Your task to perform on an android device: open app "Airtel Thanks" (install if not already installed), go to login, and select forgot password Image 0: 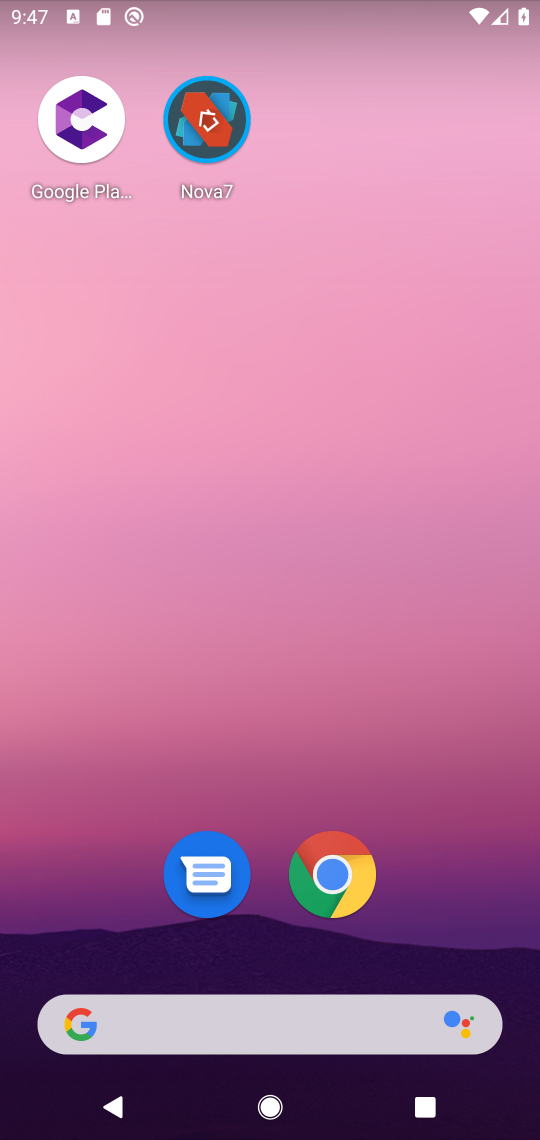
Step 0: drag from (380, 586) to (388, 131)
Your task to perform on an android device: open app "Airtel Thanks" (install if not already installed), go to login, and select forgot password Image 1: 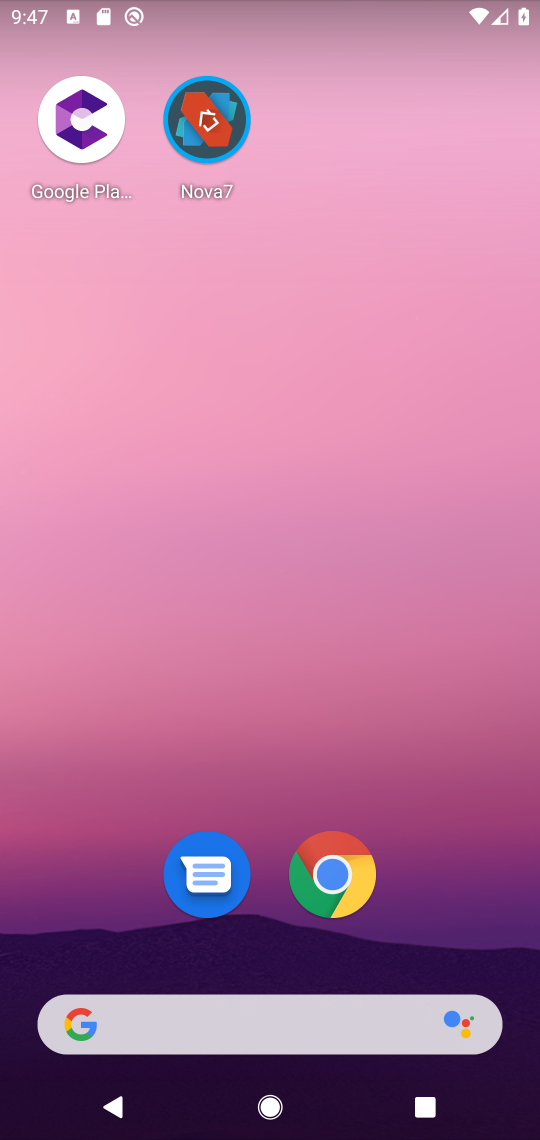
Step 1: drag from (292, 815) to (207, 186)
Your task to perform on an android device: open app "Airtel Thanks" (install if not already installed), go to login, and select forgot password Image 2: 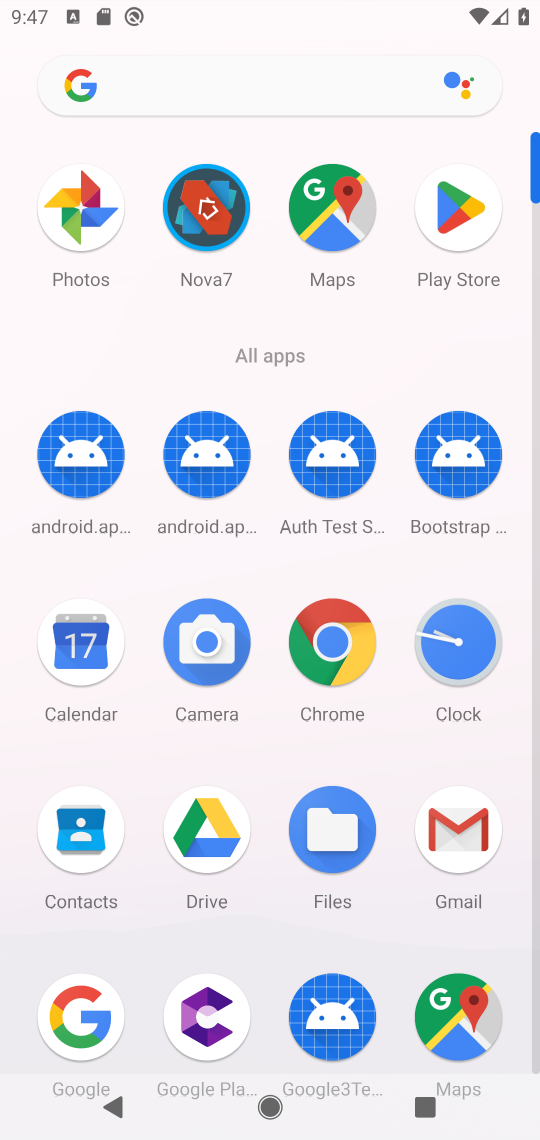
Step 2: click (460, 243)
Your task to perform on an android device: open app "Airtel Thanks" (install if not already installed), go to login, and select forgot password Image 3: 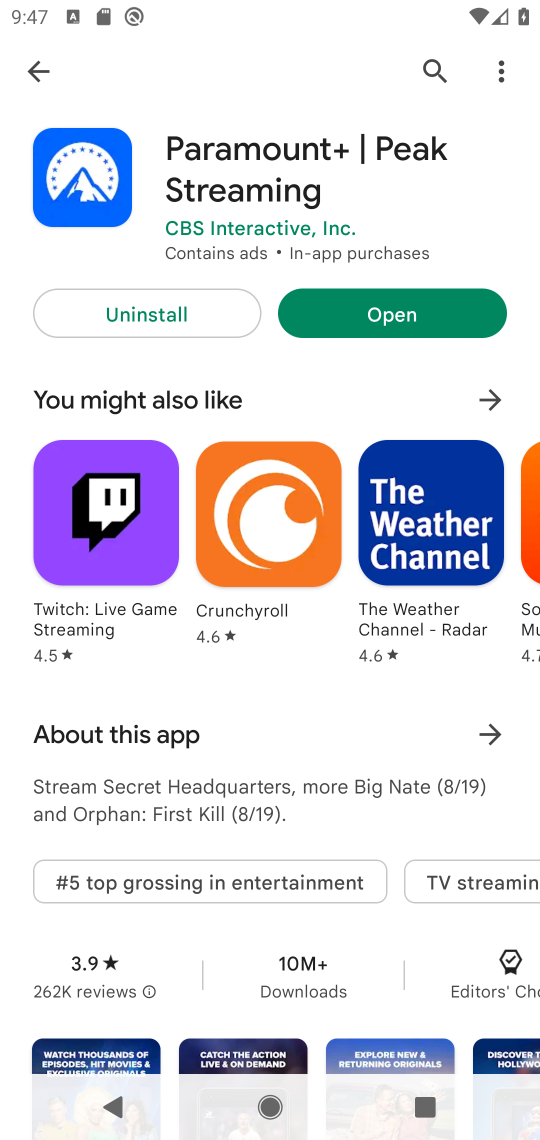
Step 3: click (36, 67)
Your task to perform on an android device: open app "Airtel Thanks" (install if not already installed), go to login, and select forgot password Image 4: 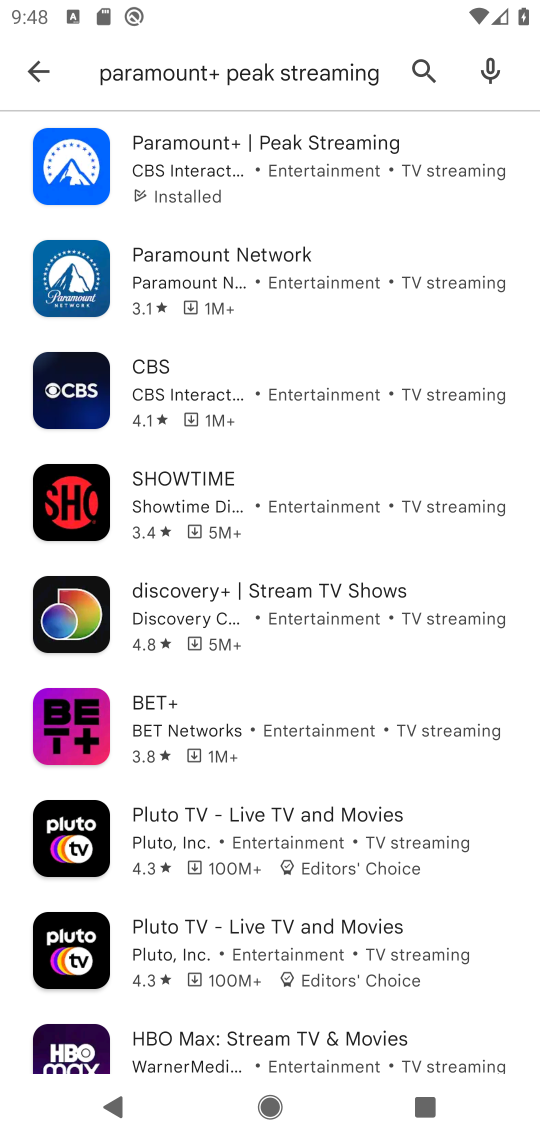
Step 4: click (34, 69)
Your task to perform on an android device: open app "Airtel Thanks" (install if not already installed), go to login, and select forgot password Image 5: 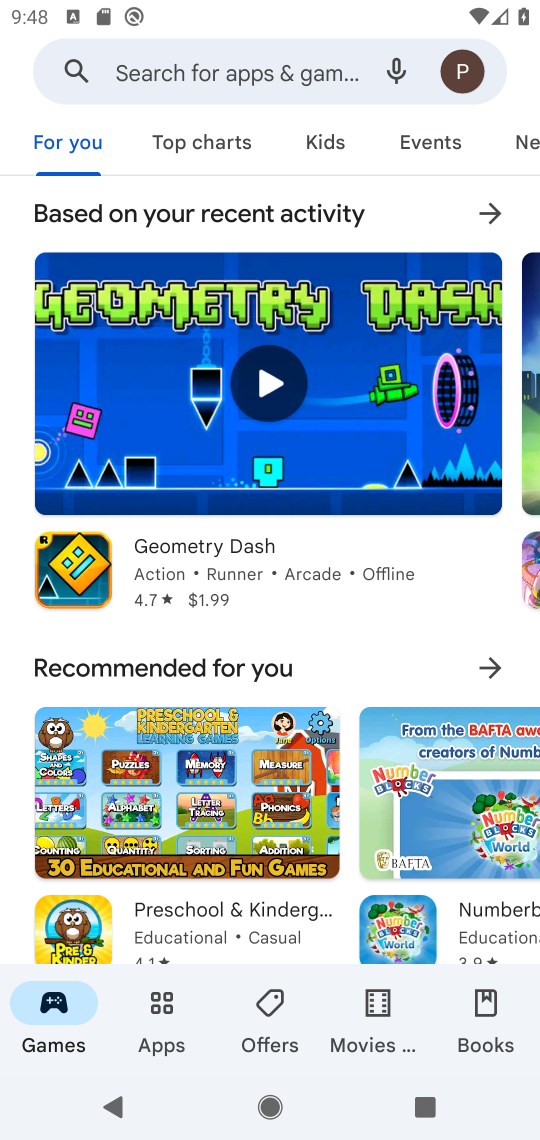
Step 5: click (110, 64)
Your task to perform on an android device: open app "Airtel Thanks" (install if not already installed), go to login, and select forgot password Image 6: 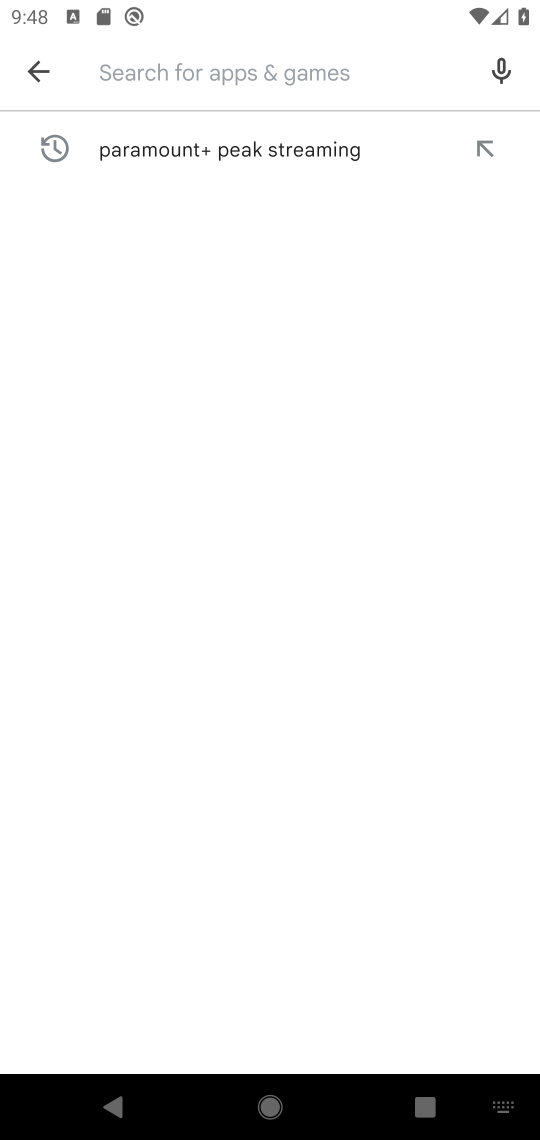
Step 6: type "Airtel Thanks"
Your task to perform on an android device: open app "Airtel Thanks" (install if not already installed), go to login, and select forgot password Image 7: 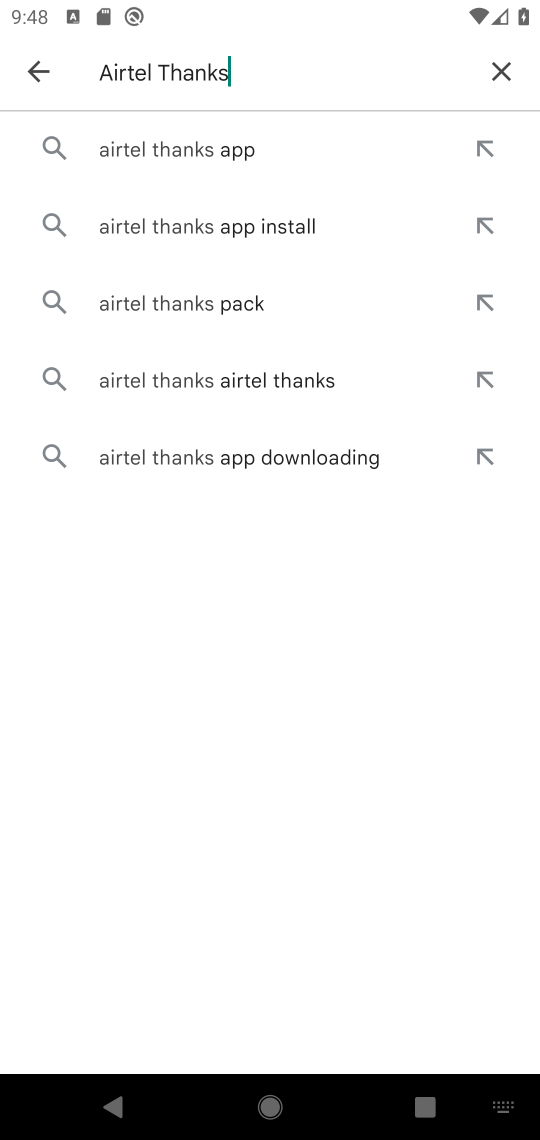
Step 7: click (108, 156)
Your task to perform on an android device: open app "Airtel Thanks" (install if not already installed), go to login, and select forgot password Image 8: 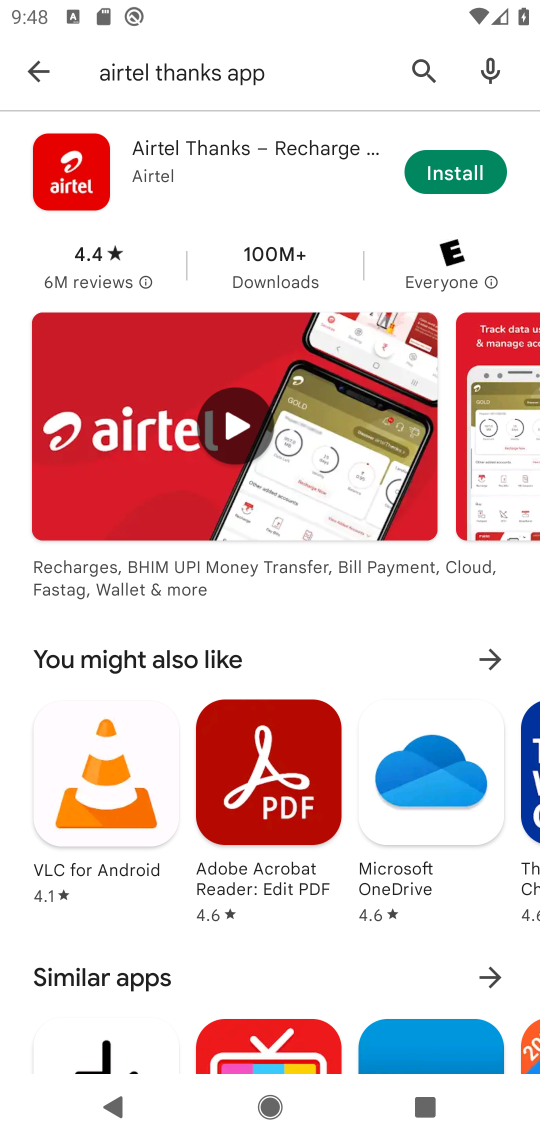
Step 8: click (487, 163)
Your task to perform on an android device: open app "Airtel Thanks" (install if not already installed), go to login, and select forgot password Image 9: 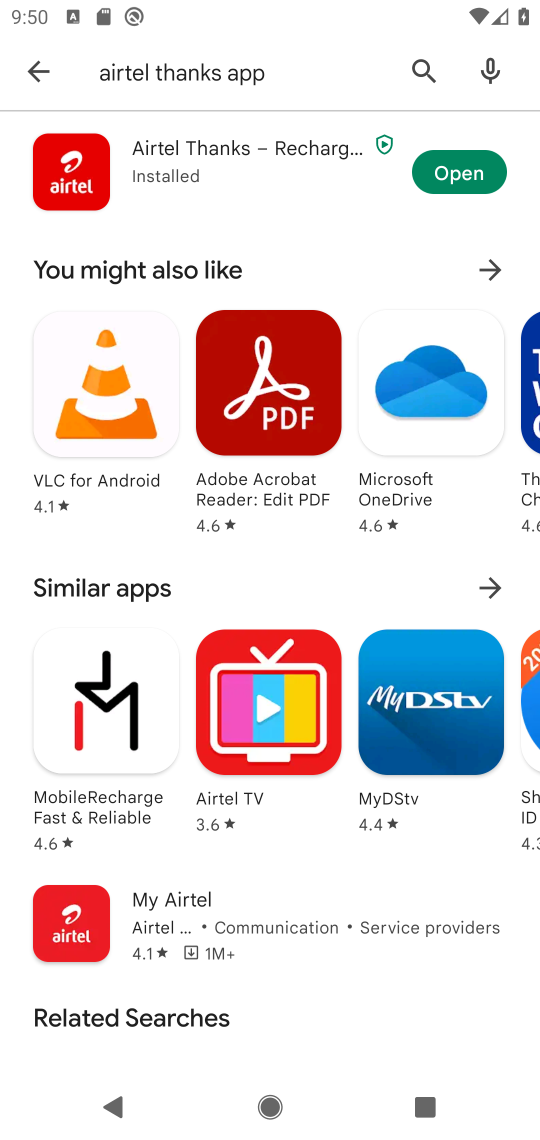
Step 9: click (443, 183)
Your task to perform on an android device: open app "Airtel Thanks" (install if not already installed), go to login, and select forgot password Image 10: 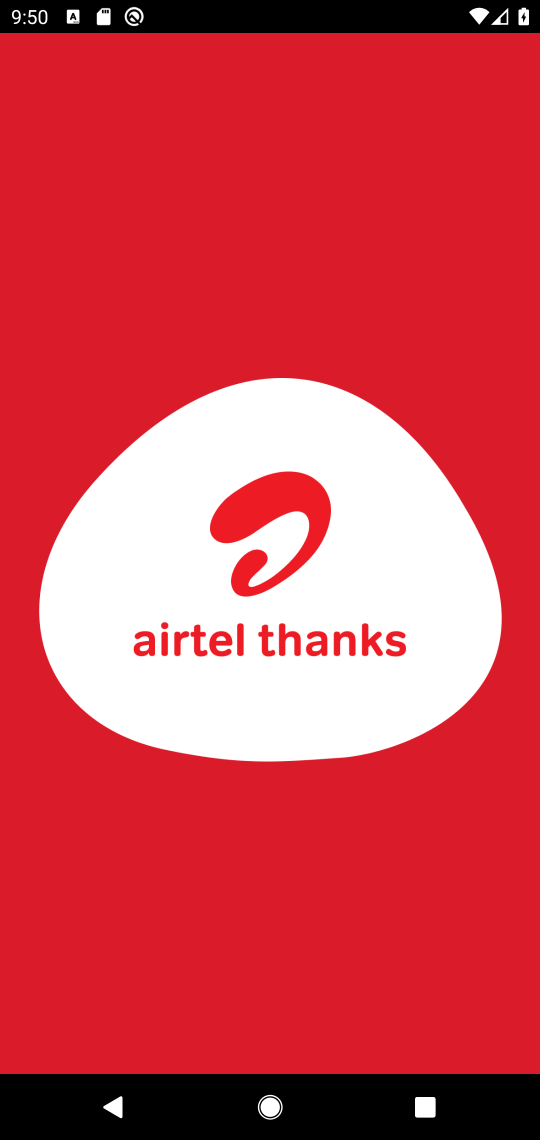
Step 10: task complete